Your task to perform on an android device: Open Youtube and go to the subscriptions tab Image 0: 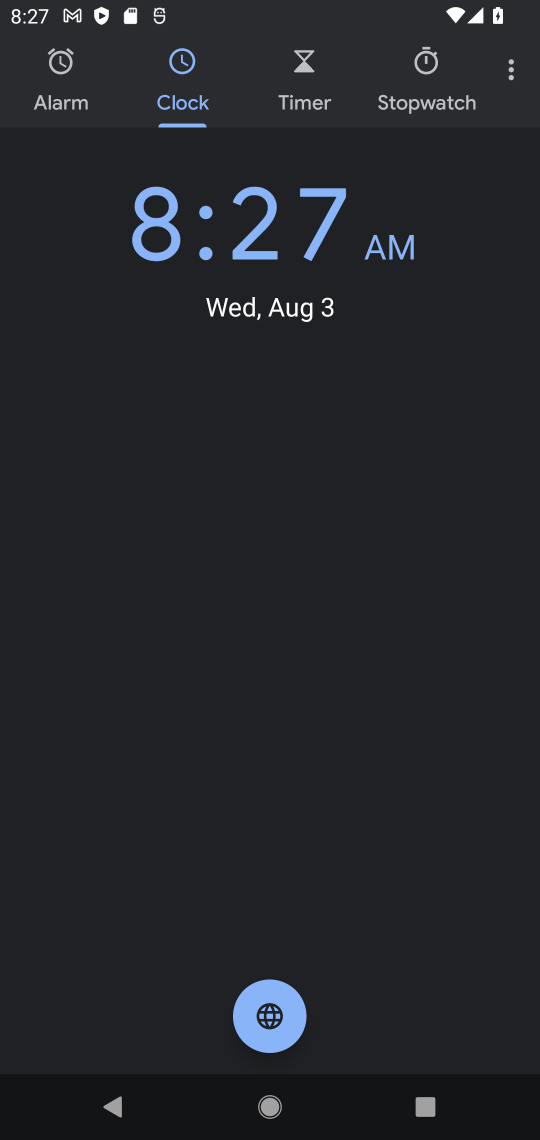
Step 0: press home button
Your task to perform on an android device: Open Youtube and go to the subscriptions tab Image 1: 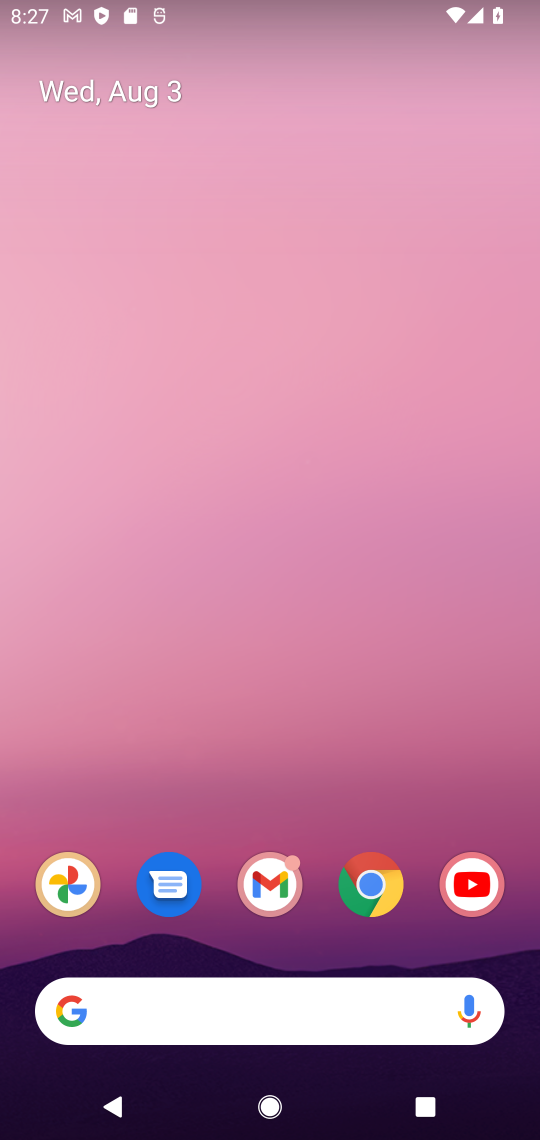
Step 1: click (480, 874)
Your task to perform on an android device: Open Youtube and go to the subscriptions tab Image 2: 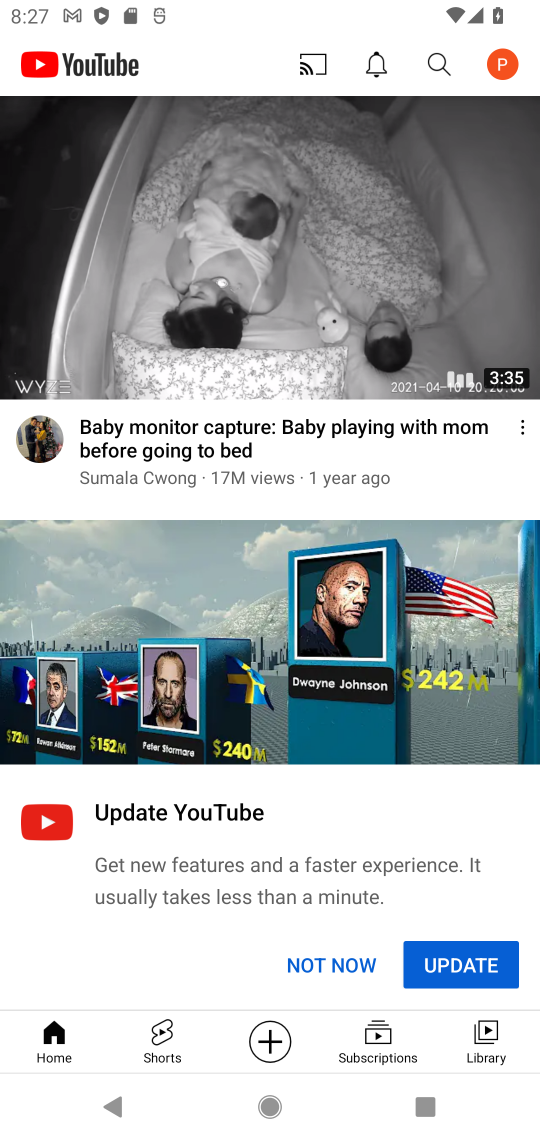
Step 2: click (382, 1048)
Your task to perform on an android device: Open Youtube and go to the subscriptions tab Image 3: 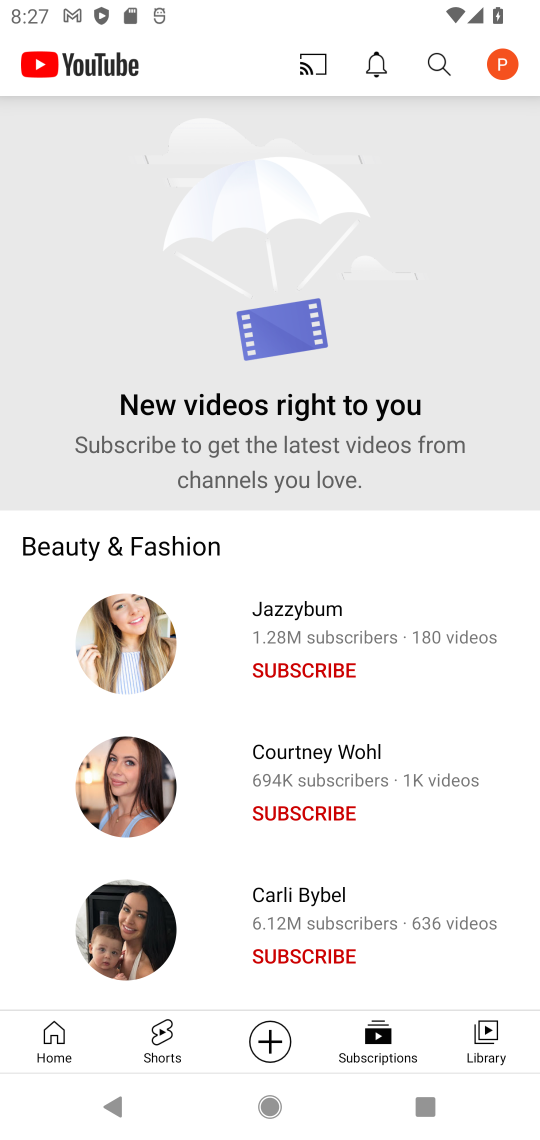
Step 3: task complete